Your task to perform on an android device: Turn on the flashlight Image 0: 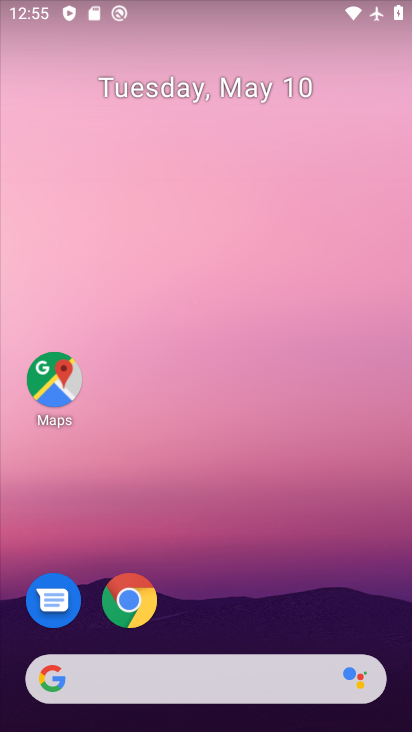
Step 0: click (390, 43)
Your task to perform on an android device: Turn on the flashlight Image 1: 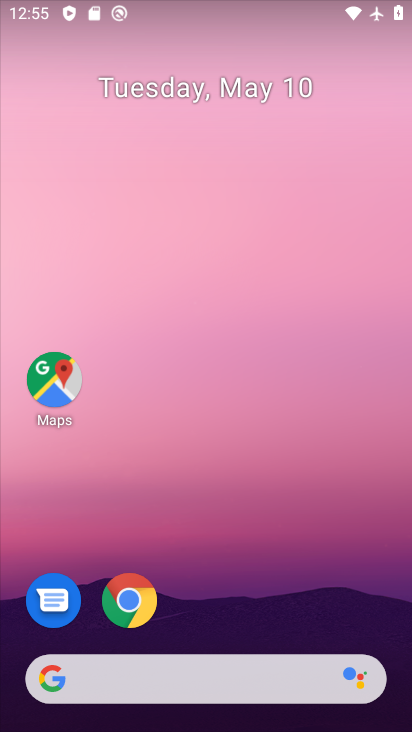
Step 1: task complete